Your task to perform on an android device: Open Google Chrome and click the shortcut for Amazon.com Image 0: 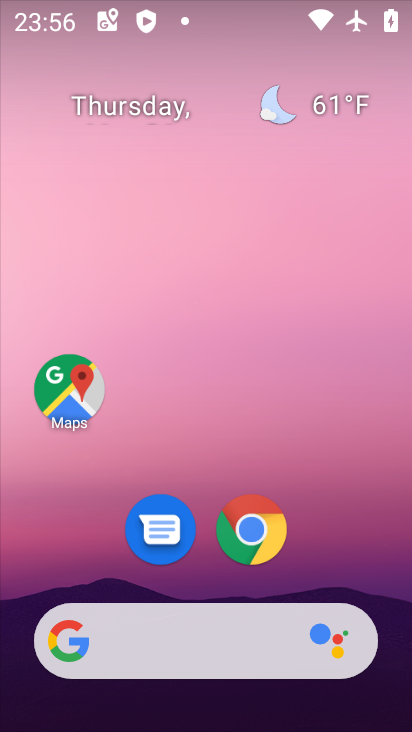
Step 0: click (277, 547)
Your task to perform on an android device: Open Google Chrome and click the shortcut for Amazon.com Image 1: 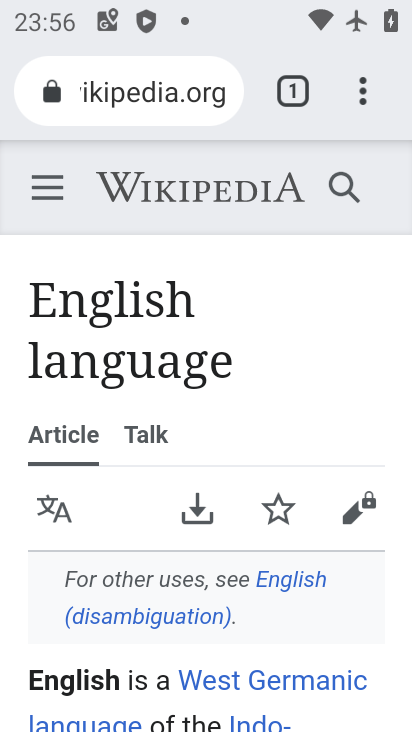
Step 1: click (363, 108)
Your task to perform on an android device: Open Google Chrome and click the shortcut for Amazon.com Image 2: 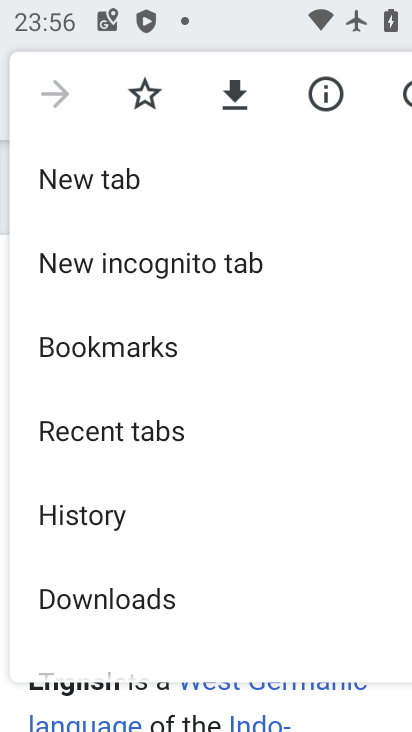
Step 2: drag from (185, 549) to (204, 260)
Your task to perform on an android device: Open Google Chrome and click the shortcut for Amazon.com Image 3: 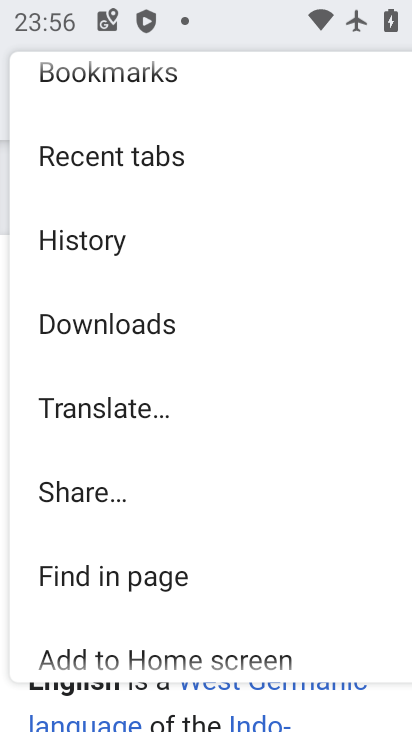
Step 3: drag from (204, 260) to (123, 569)
Your task to perform on an android device: Open Google Chrome and click the shortcut for Amazon.com Image 4: 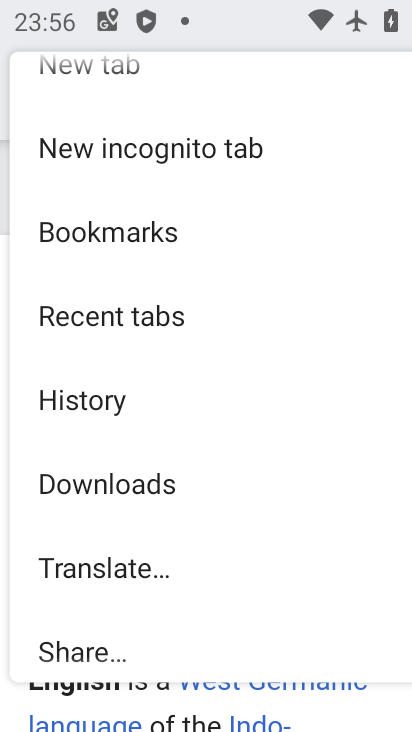
Step 4: click (2, 40)
Your task to perform on an android device: Open Google Chrome and click the shortcut for Amazon.com Image 5: 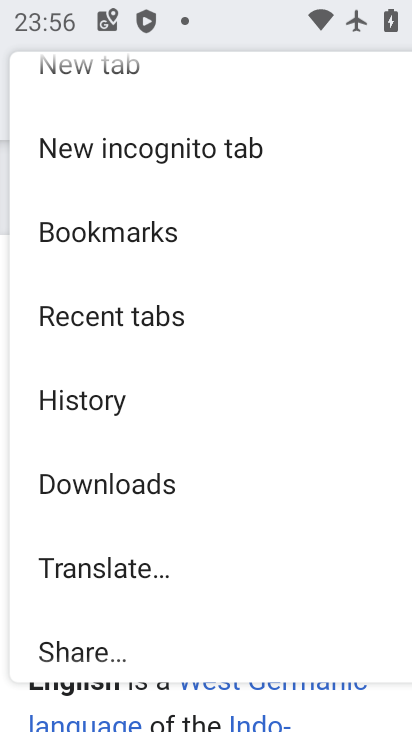
Step 5: click (2, 121)
Your task to perform on an android device: Open Google Chrome and click the shortcut for Amazon.com Image 6: 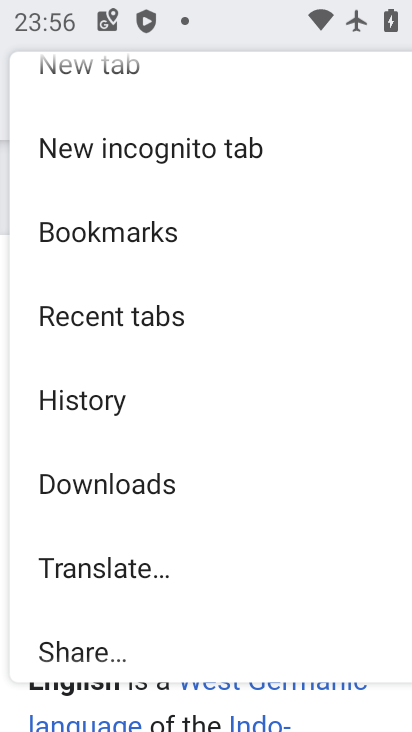
Step 6: click (2, 121)
Your task to perform on an android device: Open Google Chrome and click the shortcut for Amazon.com Image 7: 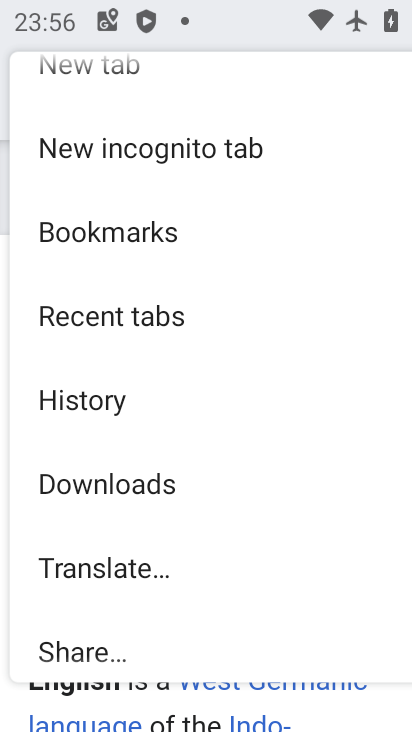
Step 7: click (9, 41)
Your task to perform on an android device: Open Google Chrome and click the shortcut for Amazon.com Image 8: 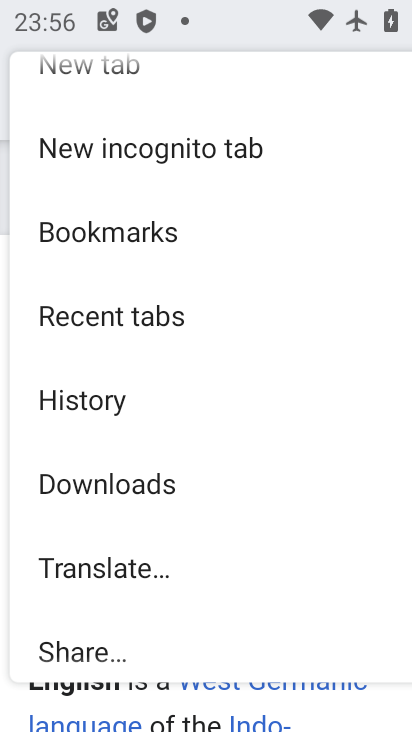
Step 8: task complete